Your task to perform on an android device: Turn off the flashlight Image 0: 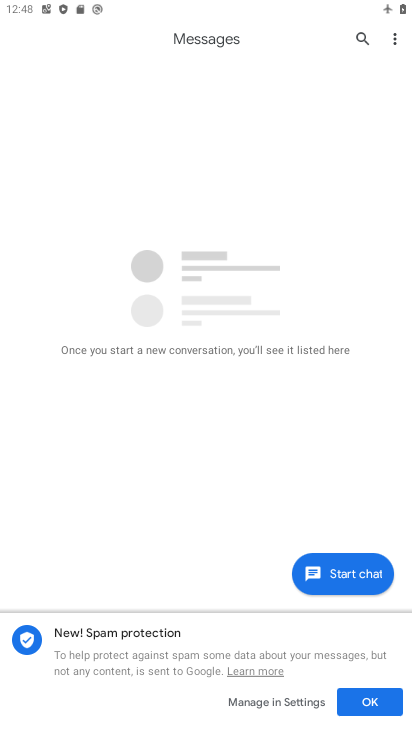
Step 0: press home button
Your task to perform on an android device: Turn off the flashlight Image 1: 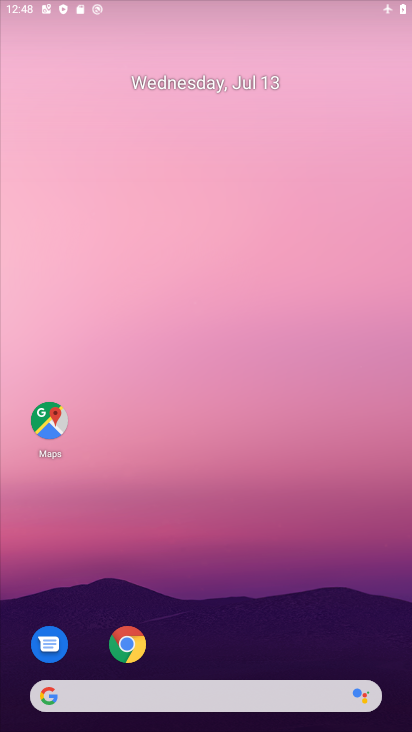
Step 1: click (233, 81)
Your task to perform on an android device: Turn off the flashlight Image 2: 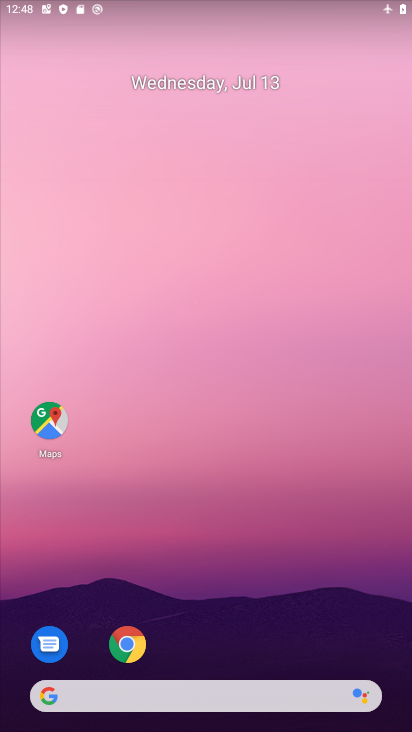
Step 2: drag from (240, 527) to (234, 44)
Your task to perform on an android device: Turn off the flashlight Image 3: 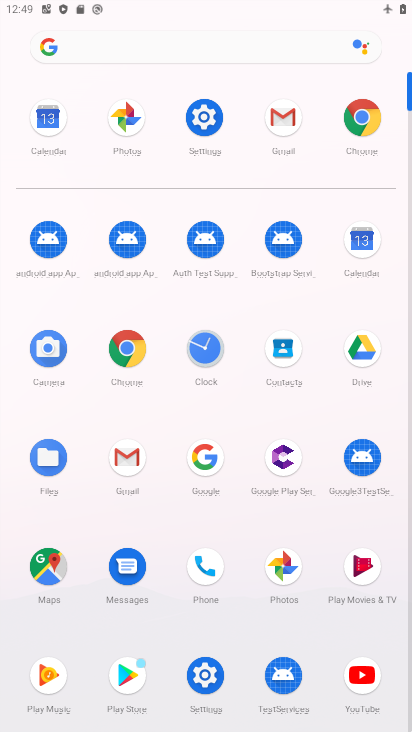
Step 3: click (208, 122)
Your task to perform on an android device: Turn off the flashlight Image 4: 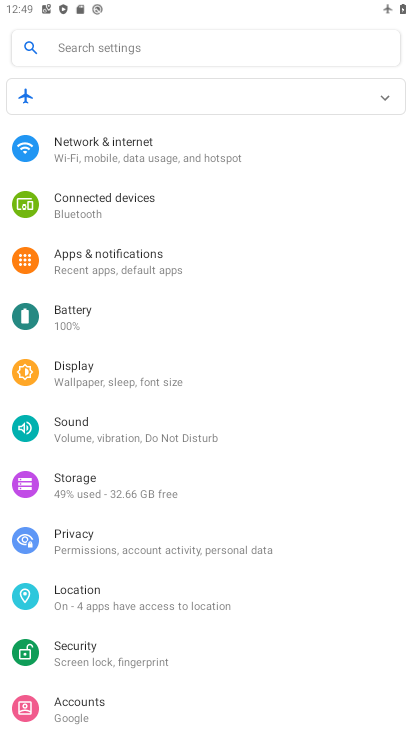
Step 4: click (126, 386)
Your task to perform on an android device: Turn off the flashlight Image 5: 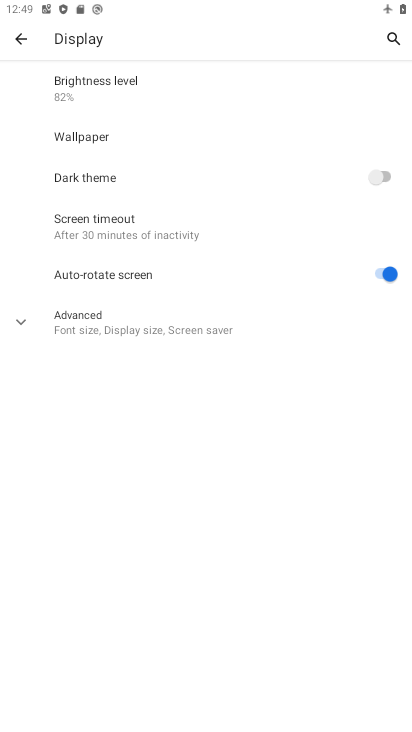
Step 5: click (169, 331)
Your task to perform on an android device: Turn off the flashlight Image 6: 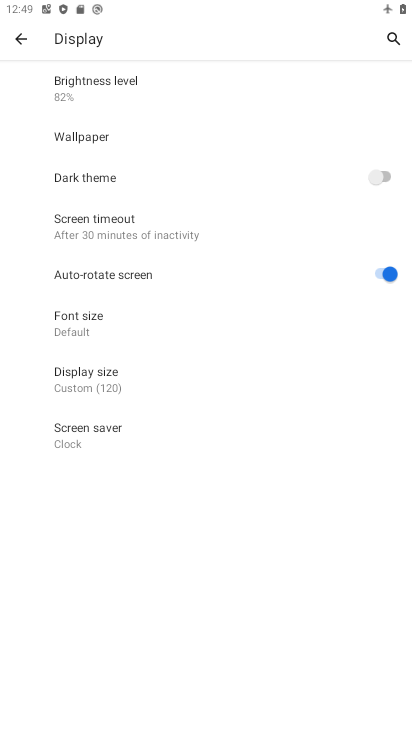
Step 6: task complete